Your task to perform on an android device: turn on notifications settings in the gmail app Image 0: 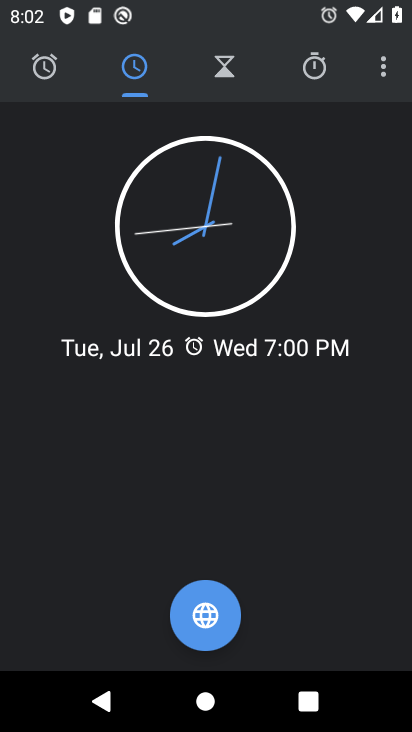
Step 0: press home button
Your task to perform on an android device: turn on notifications settings in the gmail app Image 1: 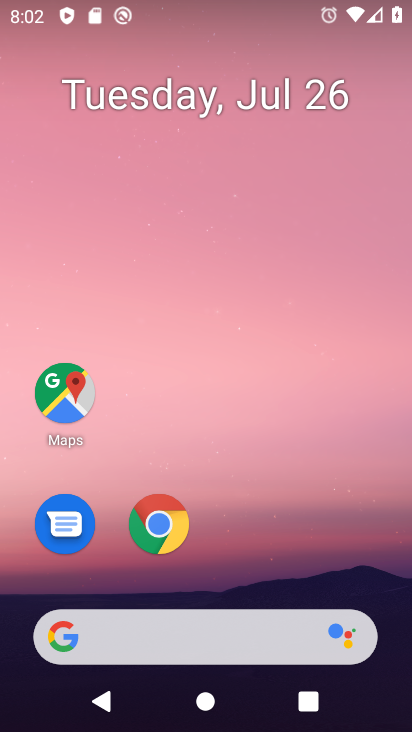
Step 1: drag from (276, 543) to (314, 41)
Your task to perform on an android device: turn on notifications settings in the gmail app Image 2: 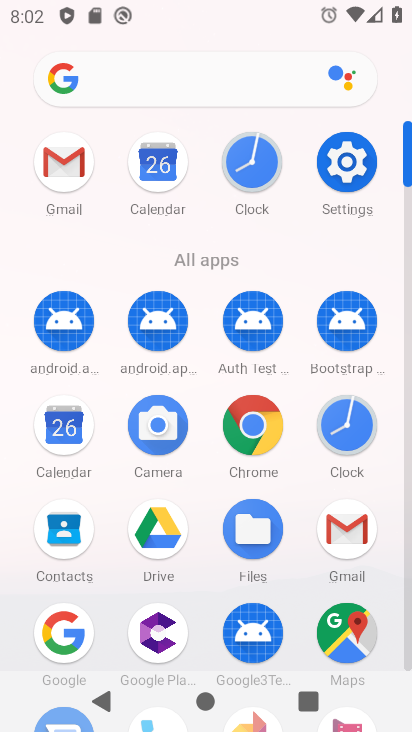
Step 2: click (79, 171)
Your task to perform on an android device: turn on notifications settings in the gmail app Image 3: 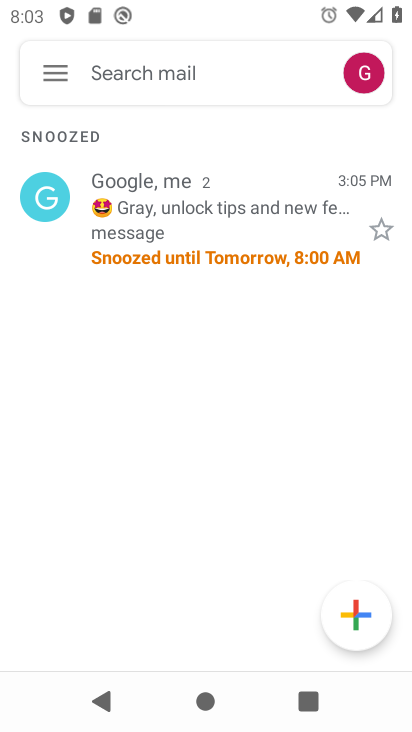
Step 3: click (60, 72)
Your task to perform on an android device: turn on notifications settings in the gmail app Image 4: 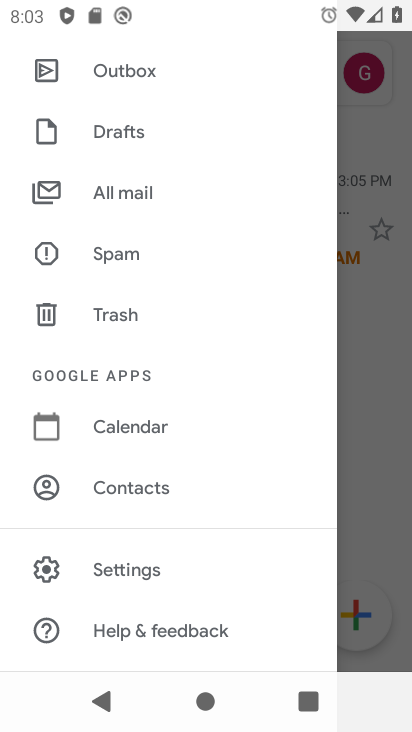
Step 4: click (151, 566)
Your task to perform on an android device: turn on notifications settings in the gmail app Image 5: 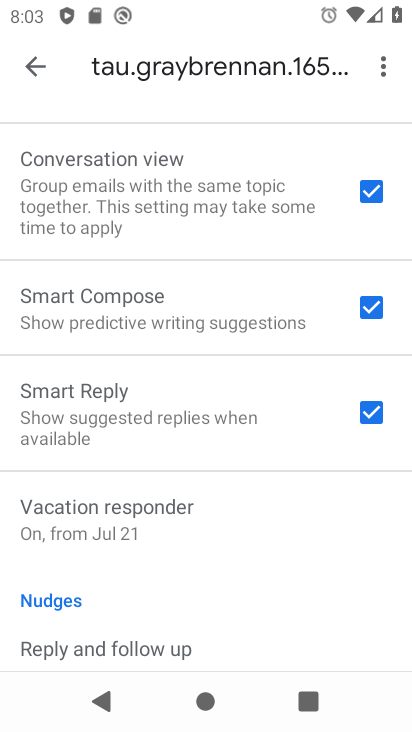
Step 5: drag from (250, 147) to (266, 560)
Your task to perform on an android device: turn on notifications settings in the gmail app Image 6: 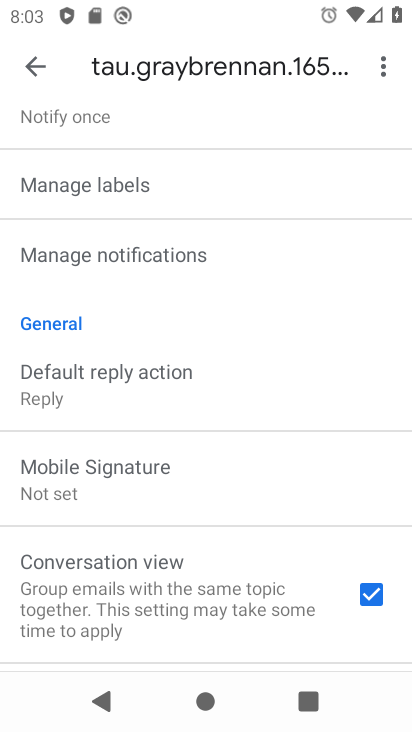
Step 6: click (206, 244)
Your task to perform on an android device: turn on notifications settings in the gmail app Image 7: 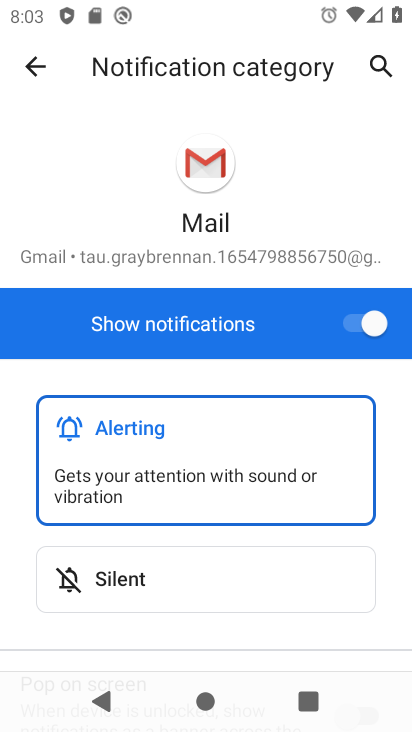
Step 7: task complete